Your task to perform on an android device: turn off notifications in google photos Image 0: 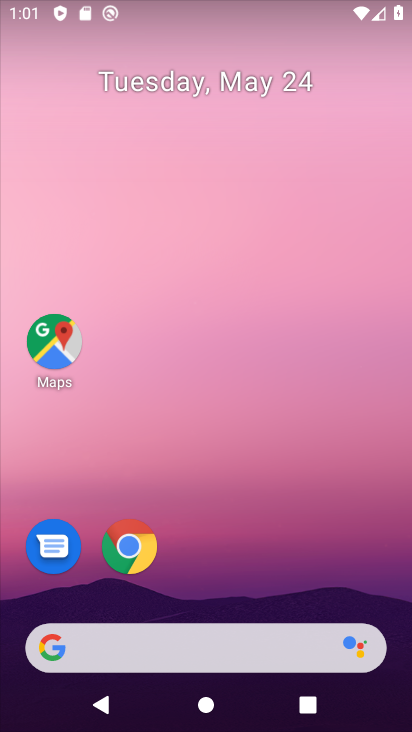
Step 0: drag from (193, 586) to (325, 49)
Your task to perform on an android device: turn off notifications in google photos Image 1: 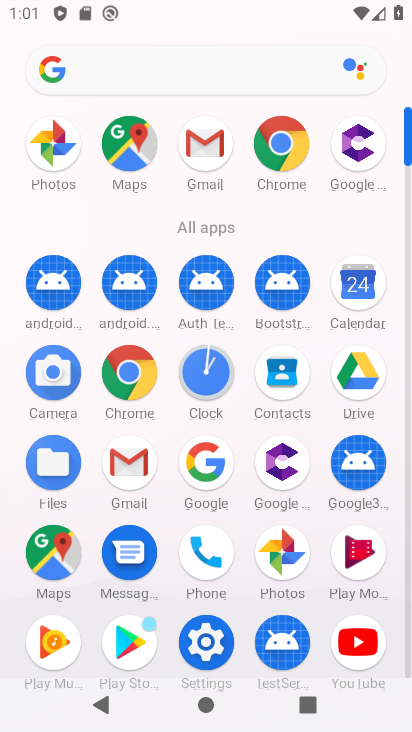
Step 1: drag from (168, 604) to (193, 183)
Your task to perform on an android device: turn off notifications in google photos Image 2: 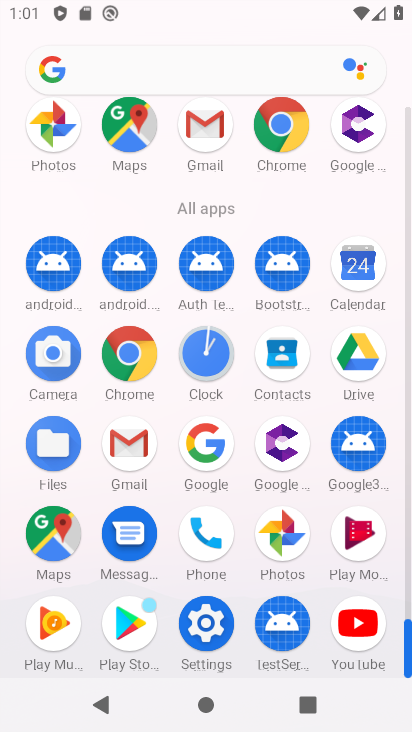
Step 2: click (272, 533)
Your task to perform on an android device: turn off notifications in google photos Image 3: 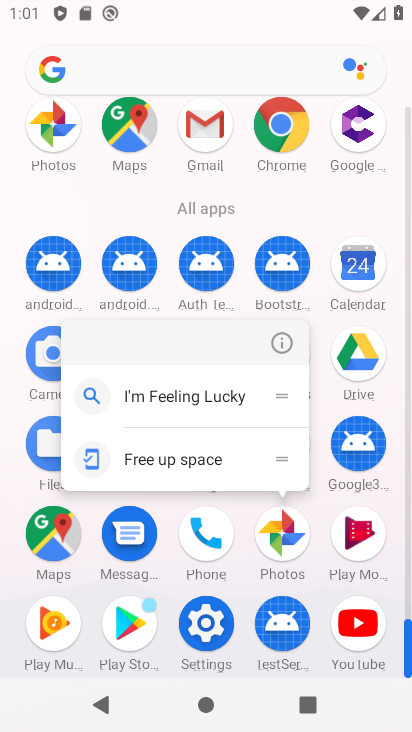
Step 3: click (276, 342)
Your task to perform on an android device: turn off notifications in google photos Image 4: 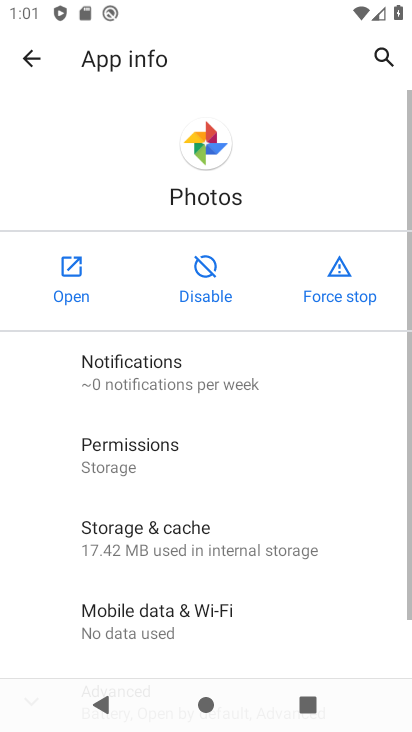
Step 4: click (75, 287)
Your task to perform on an android device: turn off notifications in google photos Image 5: 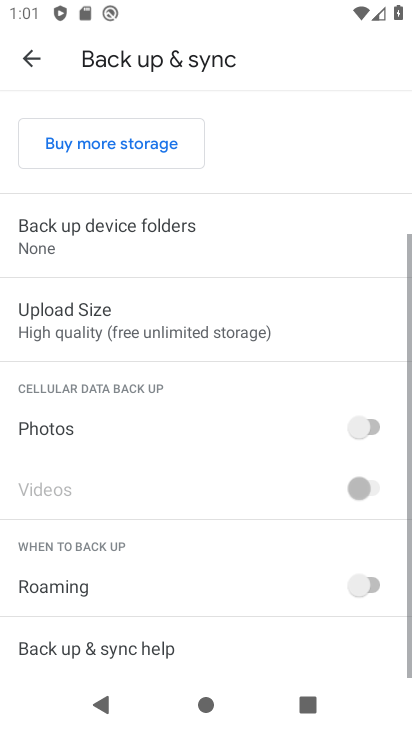
Step 5: drag from (151, 558) to (245, 144)
Your task to perform on an android device: turn off notifications in google photos Image 6: 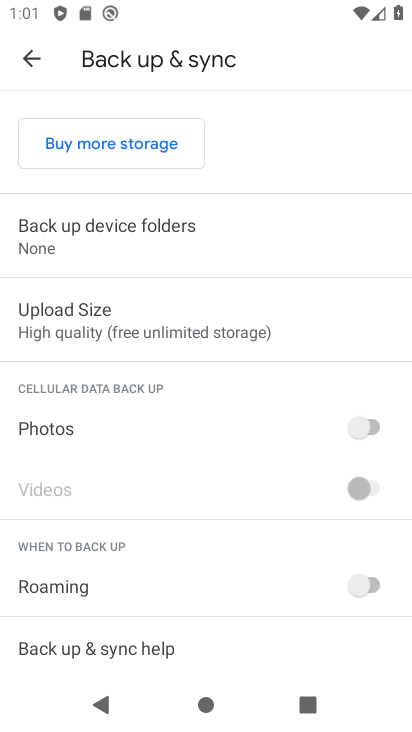
Step 6: drag from (243, 177) to (286, 604)
Your task to perform on an android device: turn off notifications in google photos Image 7: 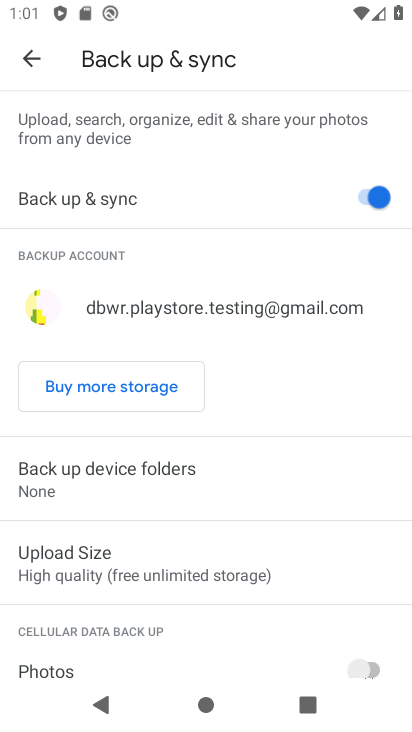
Step 7: drag from (274, 431) to (273, 175)
Your task to perform on an android device: turn off notifications in google photos Image 8: 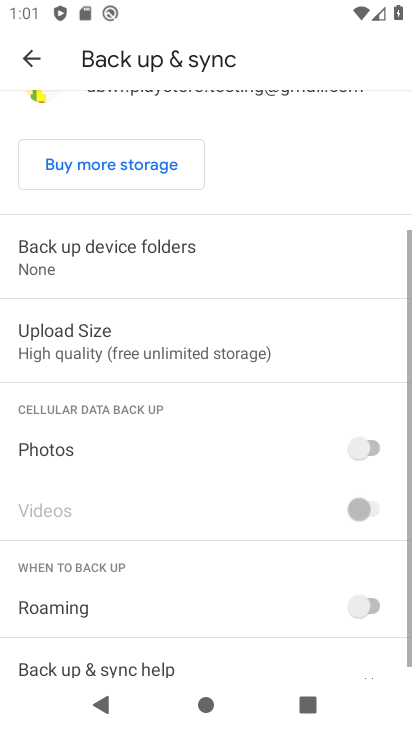
Step 8: drag from (273, 126) to (263, 633)
Your task to perform on an android device: turn off notifications in google photos Image 9: 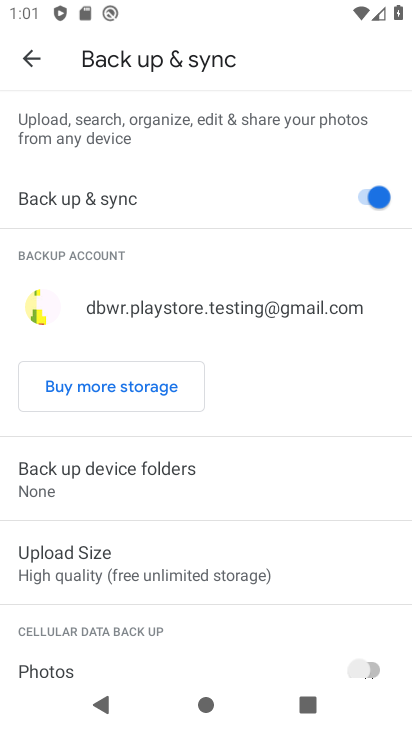
Step 9: drag from (260, 194) to (281, 564)
Your task to perform on an android device: turn off notifications in google photos Image 10: 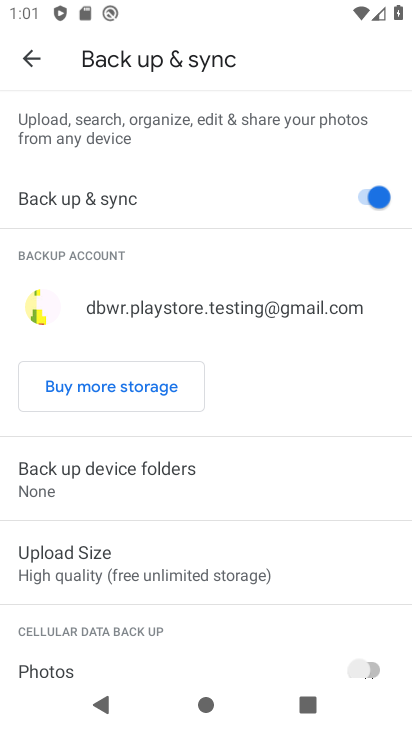
Step 10: drag from (257, 493) to (302, 164)
Your task to perform on an android device: turn off notifications in google photos Image 11: 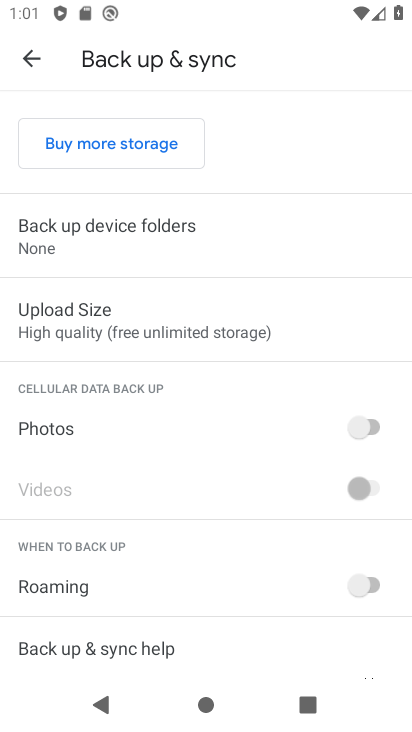
Step 11: drag from (196, 547) to (229, 243)
Your task to perform on an android device: turn off notifications in google photos Image 12: 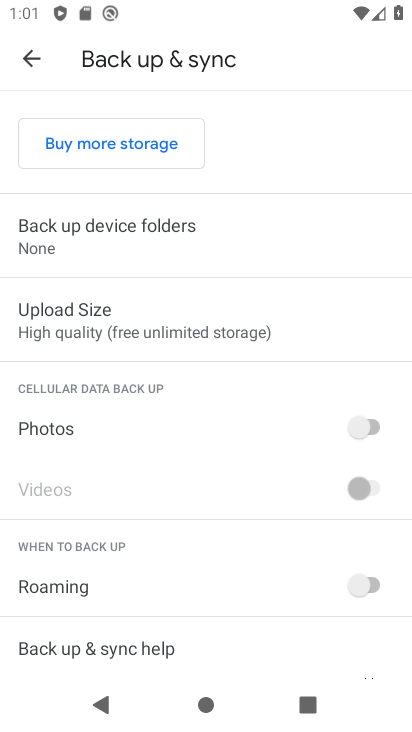
Step 12: drag from (211, 592) to (229, 524)
Your task to perform on an android device: turn off notifications in google photos Image 13: 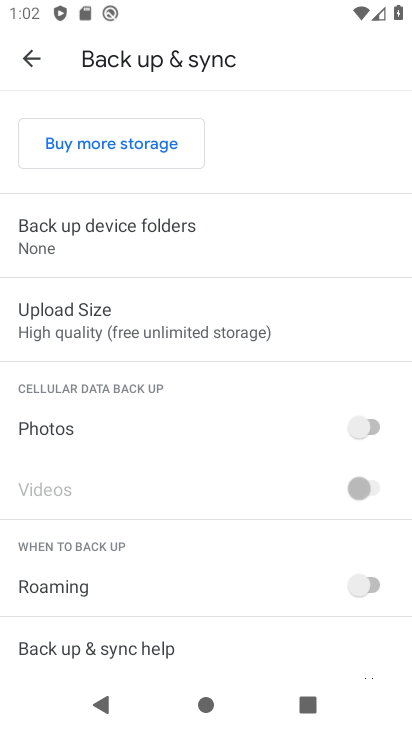
Step 13: drag from (241, 182) to (233, 669)
Your task to perform on an android device: turn off notifications in google photos Image 14: 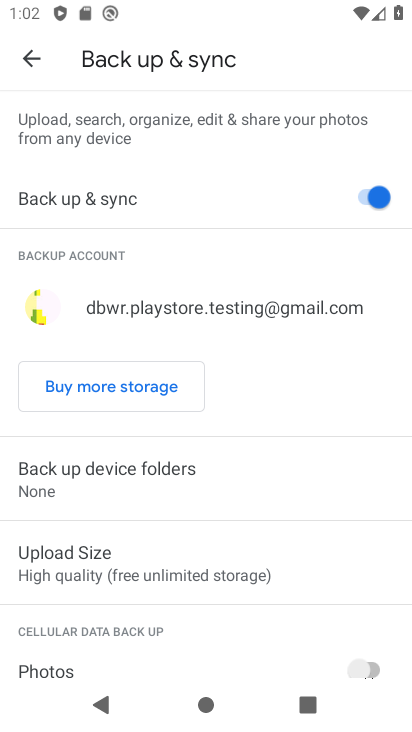
Step 14: drag from (231, 588) to (285, 204)
Your task to perform on an android device: turn off notifications in google photos Image 15: 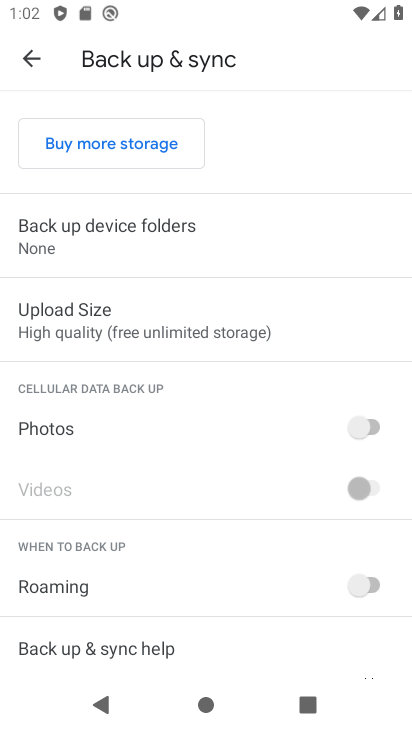
Step 15: click (29, 54)
Your task to perform on an android device: turn off notifications in google photos Image 16: 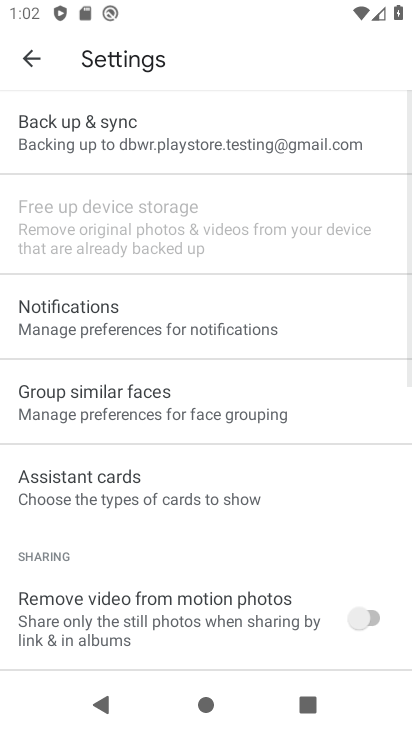
Step 16: click (133, 328)
Your task to perform on an android device: turn off notifications in google photos Image 17: 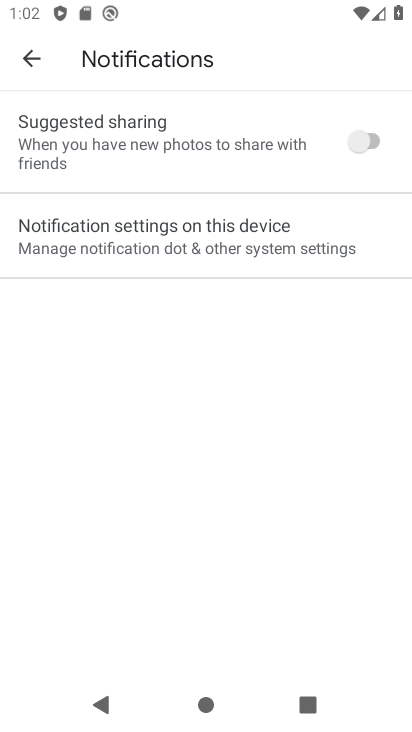
Step 17: drag from (146, 495) to (216, 205)
Your task to perform on an android device: turn off notifications in google photos Image 18: 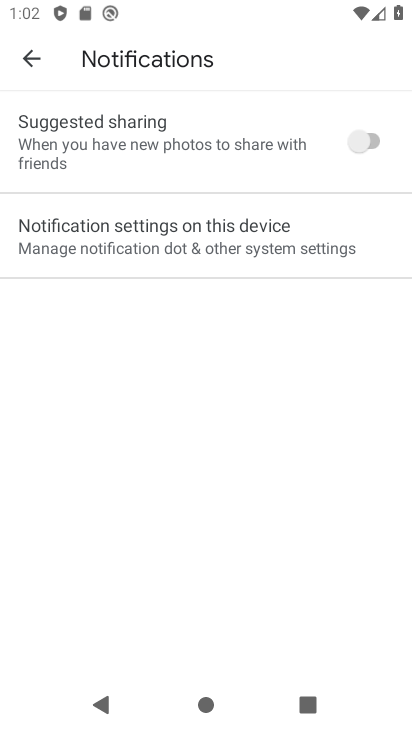
Step 18: click (189, 211)
Your task to perform on an android device: turn off notifications in google photos Image 19: 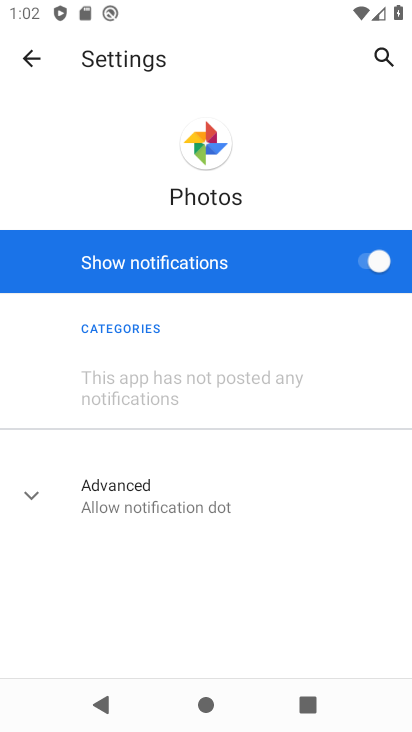
Step 19: click (354, 259)
Your task to perform on an android device: turn off notifications in google photos Image 20: 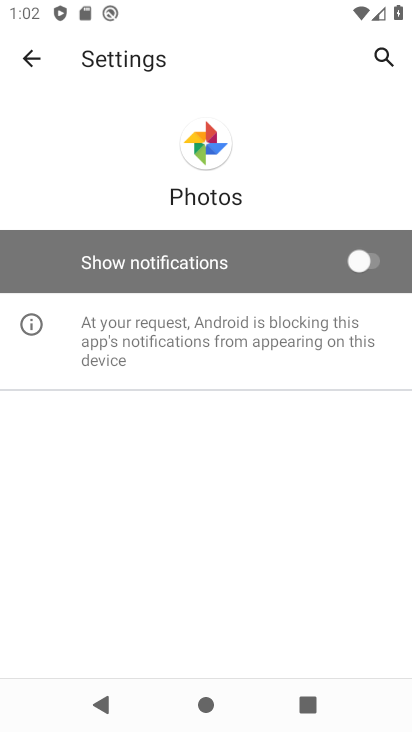
Step 20: task complete